Your task to perform on an android device: find which apps use the phone's location Image 0: 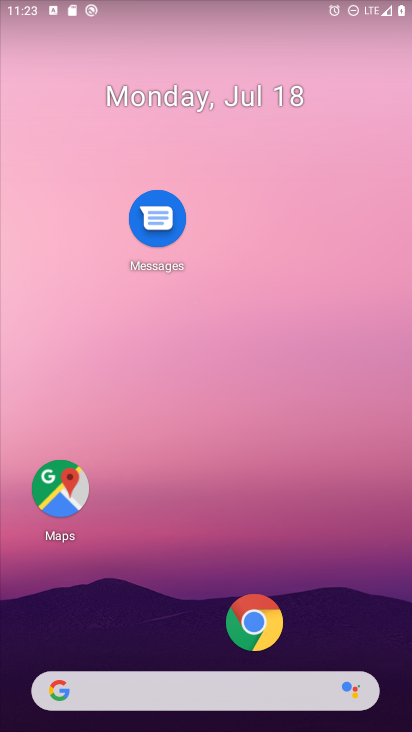
Step 0: drag from (304, 339) to (340, 31)
Your task to perform on an android device: find which apps use the phone's location Image 1: 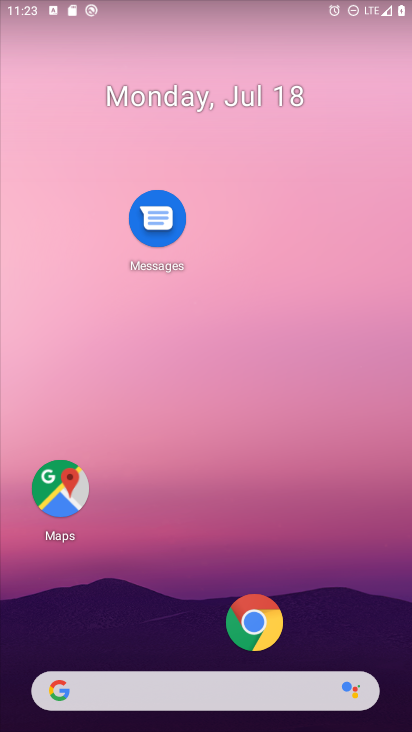
Step 1: drag from (112, 643) to (35, 0)
Your task to perform on an android device: find which apps use the phone's location Image 2: 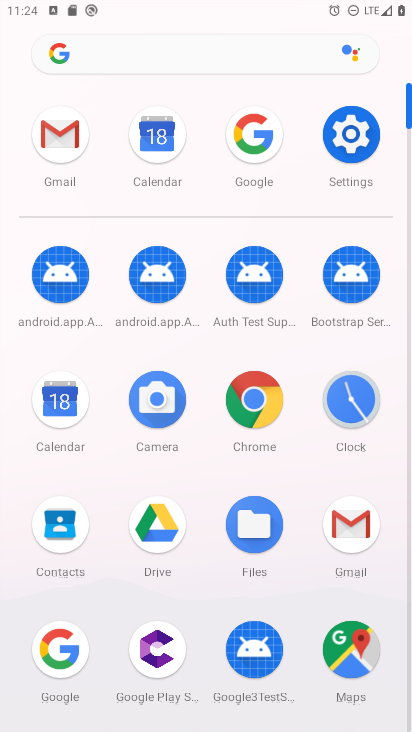
Step 2: drag from (259, 518) to (253, 186)
Your task to perform on an android device: find which apps use the phone's location Image 3: 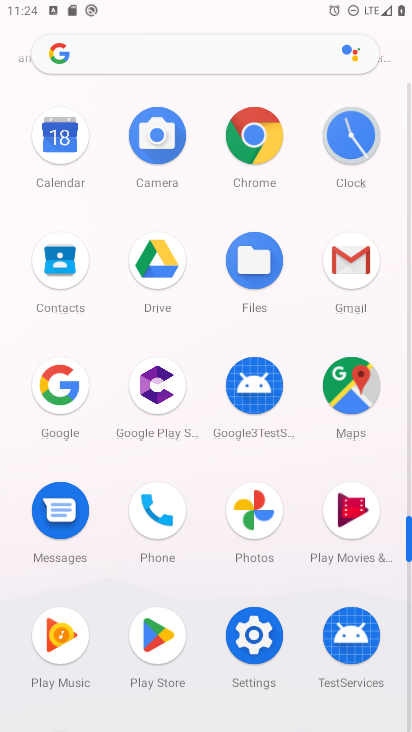
Step 3: click (254, 656)
Your task to perform on an android device: find which apps use the phone's location Image 4: 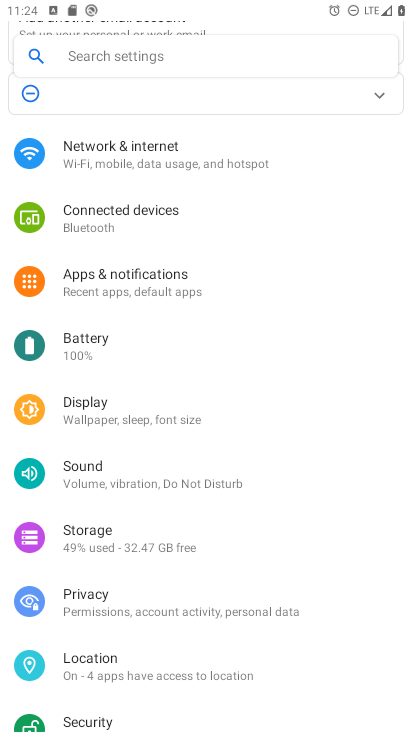
Step 4: click (178, 665)
Your task to perform on an android device: find which apps use the phone's location Image 5: 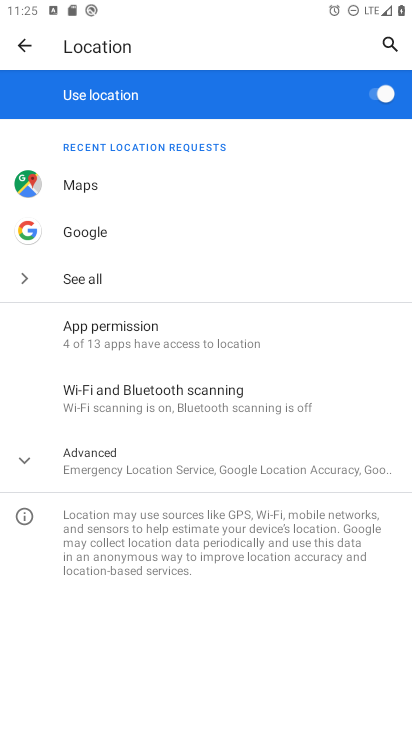
Step 5: click (159, 456)
Your task to perform on an android device: find which apps use the phone's location Image 6: 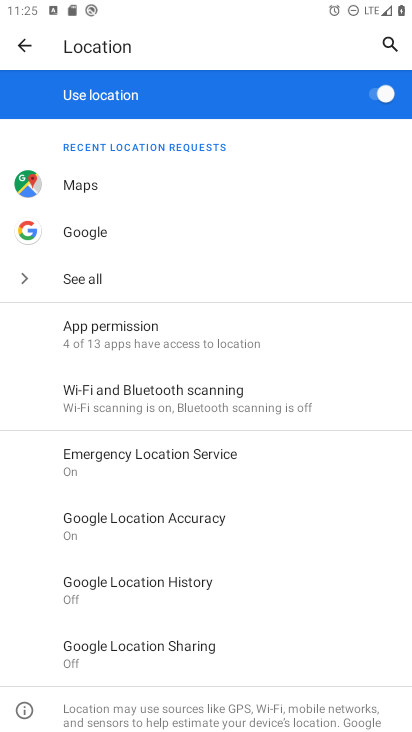
Step 6: click (146, 332)
Your task to perform on an android device: find which apps use the phone's location Image 7: 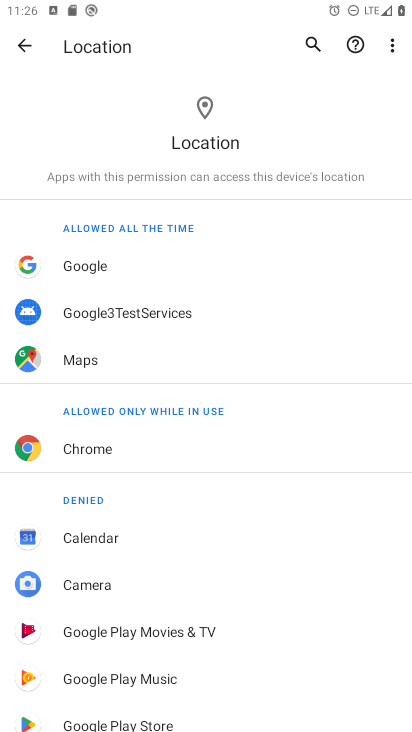
Step 7: task complete